Your task to perform on an android device: turn on sleep mode Image 0: 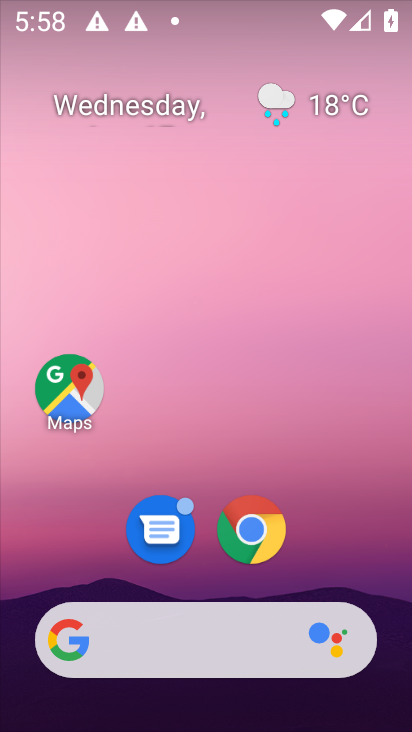
Step 0: drag from (211, 535) to (242, 76)
Your task to perform on an android device: turn on sleep mode Image 1: 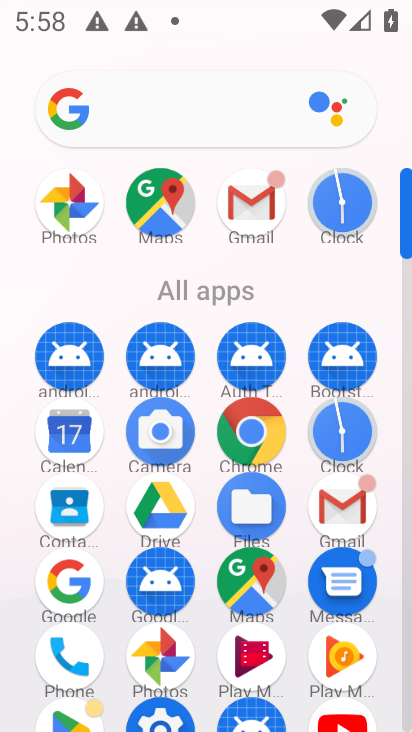
Step 1: task complete